Your task to perform on an android device: Go to location settings Image 0: 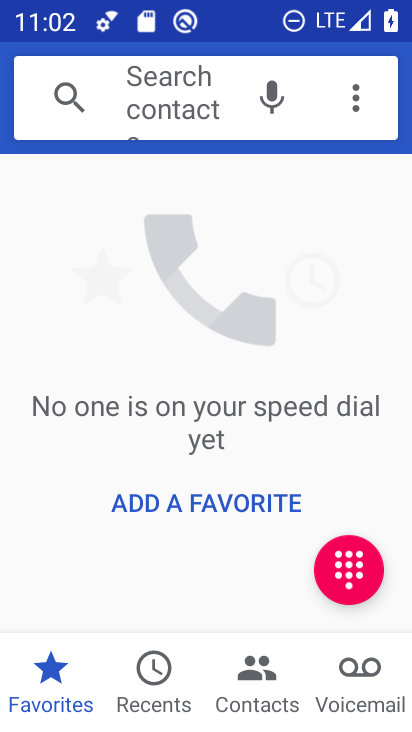
Step 0: press home button
Your task to perform on an android device: Go to location settings Image 1: 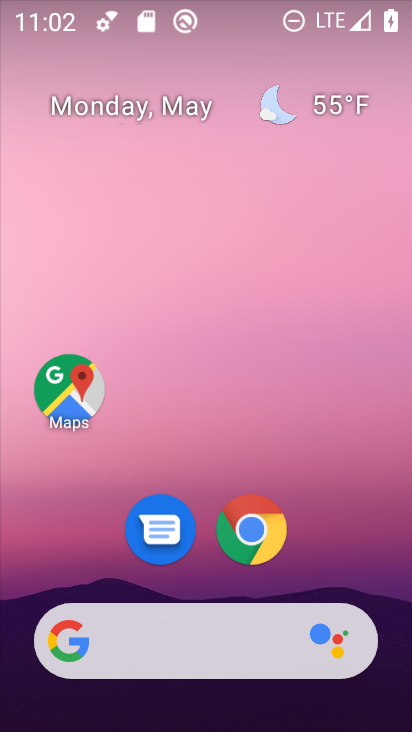
Step 1: drag from (216, 666) to (170, 180)
Your task to perform on an android device: Go to location settings Image 2: 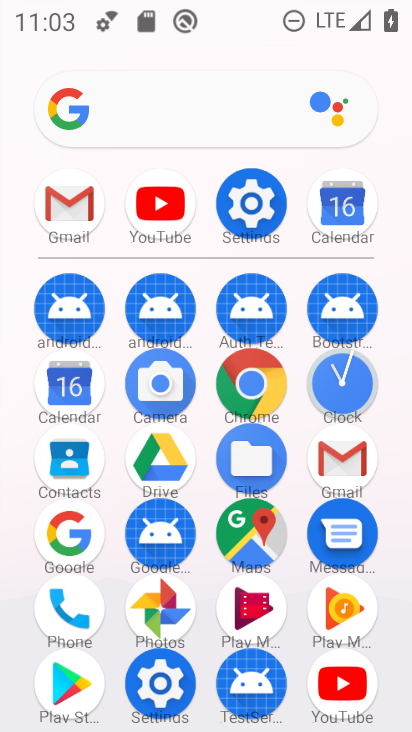
Step 2: click (230, 207)
Your task to perform on an android device: Go to location settings Image 3: 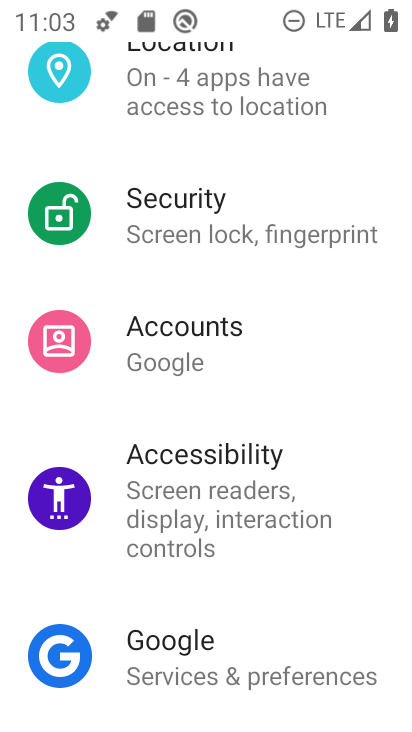
Step 3: click (161, 102)
Your task to perform on an android device: Go to location settings Image 4: 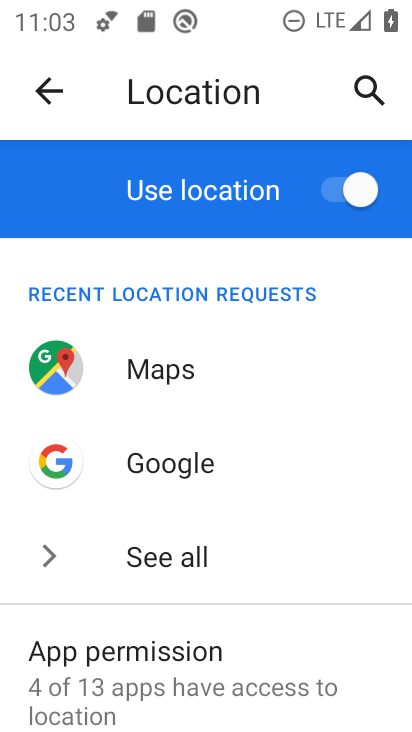
Step 4: task complete